Your task to perform on an android device: find which apps use the phone's location Image 0: 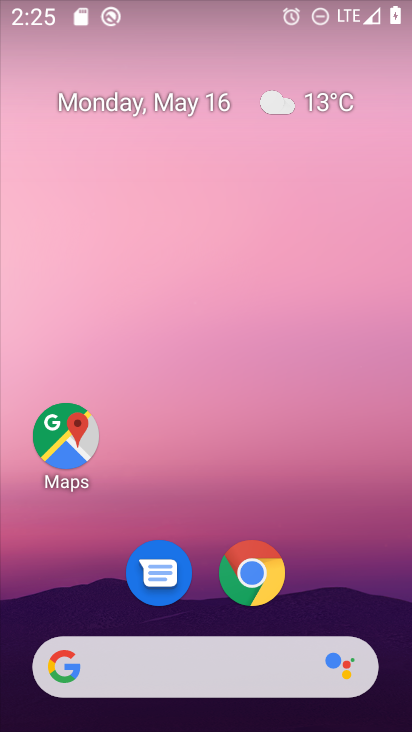
Step 0: drag from (217, 648) to (276, 213)
Your task to perform on an android device: find which apps use the phone's location Image 1: 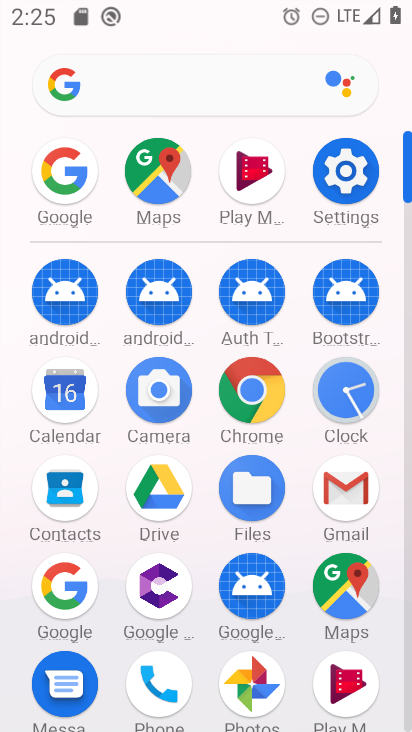
Step 1: click (337, 188)
Your task to perform on an android device: find which apps use the phone's location Image 2: 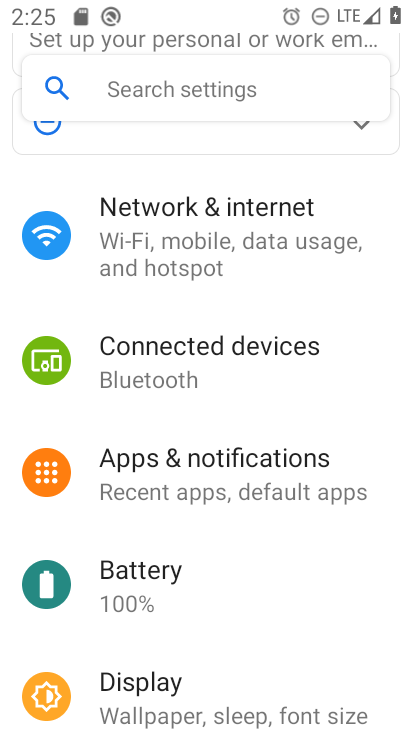
Step 2: drag from (162, 590) to (226, 136)
Your task to perform on an android device: find which apps use the phone's location Image 3: 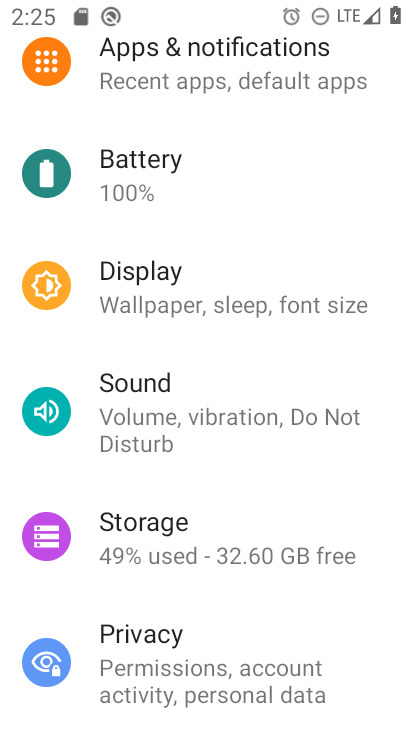
Step 3: drag from (151, 646) to (219, 144)
Your task to perform on an android device: find which apps use the phone's location Image 4: 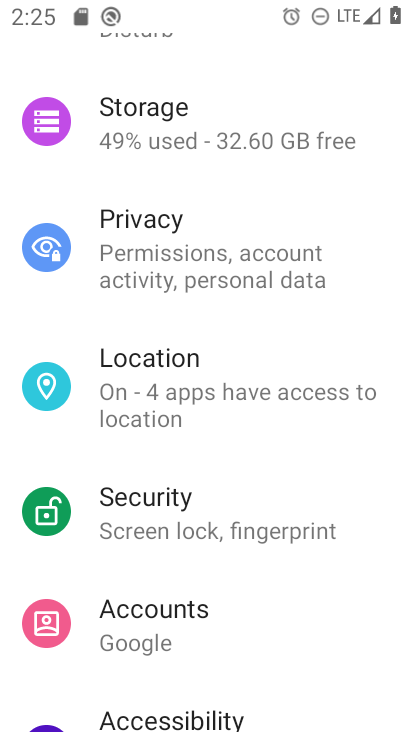
Step 4: click (122, 405)
Your task to perform on an android device: find which apps use the phone's location Image 5: 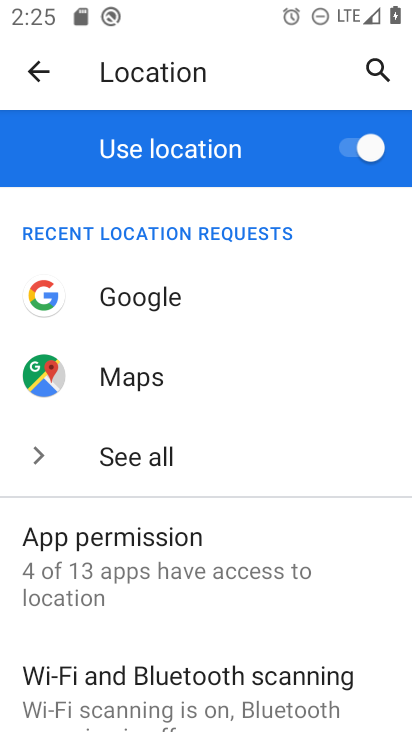
Step 5: click (151, 575)
Your task to perform on an android device: find which apps use the phone's location Image 6: 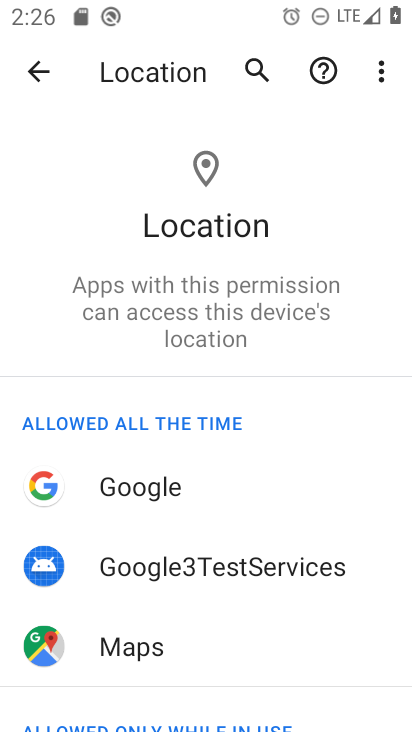
Step 6: task complete